Your task to perform on an android device: toggle javascript in the chrome app Image 0: 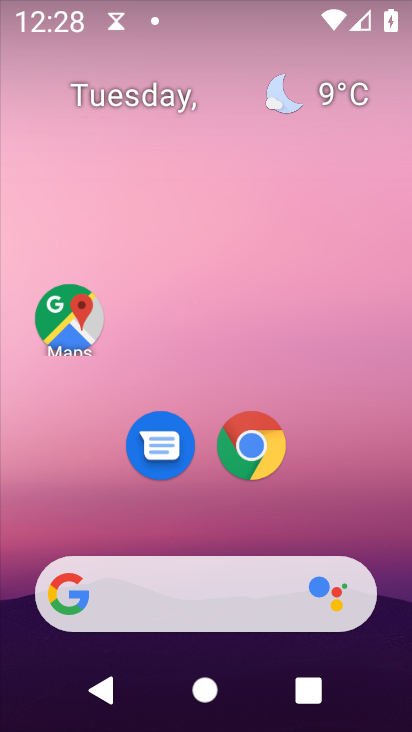
Step 0: drag from (379, 614) to (401, 130)
Your task to perform on an android device: toggle javascript in the chrome app Image 1: 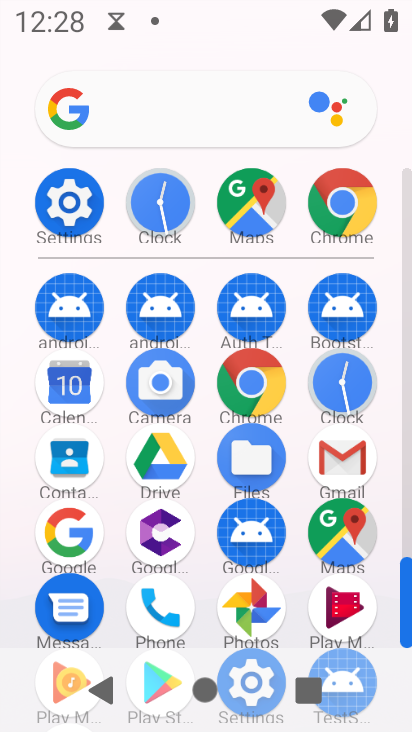
Step 1: click (239, 379)
Your task to perform on an android device: toggle javascript in the chrome app Image 2: 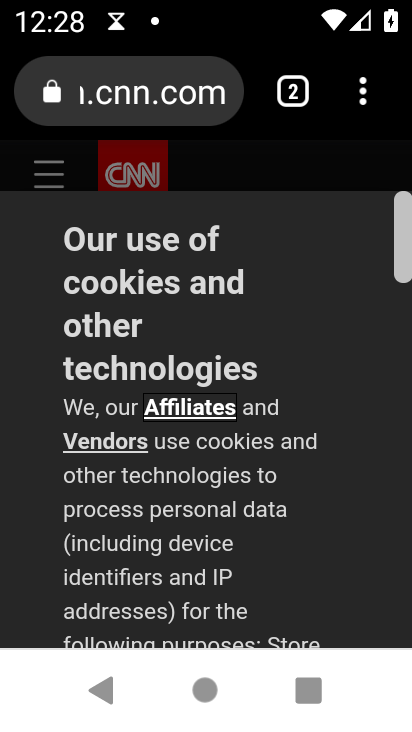
Step 2: drag from (360, 91) to (268, 492)
Your task to perform on an android device: toggle javascript in the chrome app Image 3: 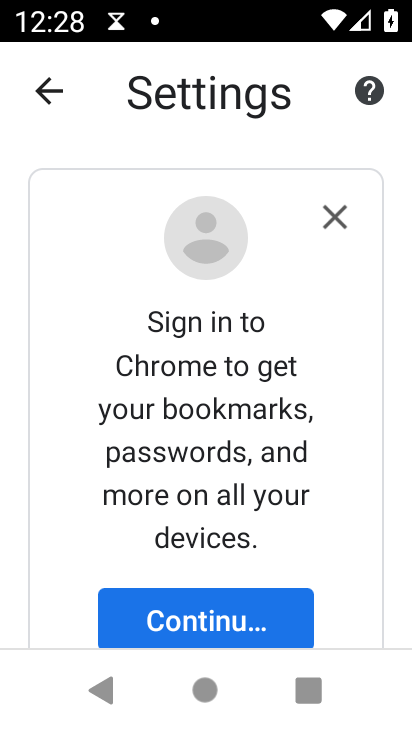
Step 3: drag from (363, 606) to (375, 97)
Your task to perform on an android device: toggle javascript in the chrome app Image 4: 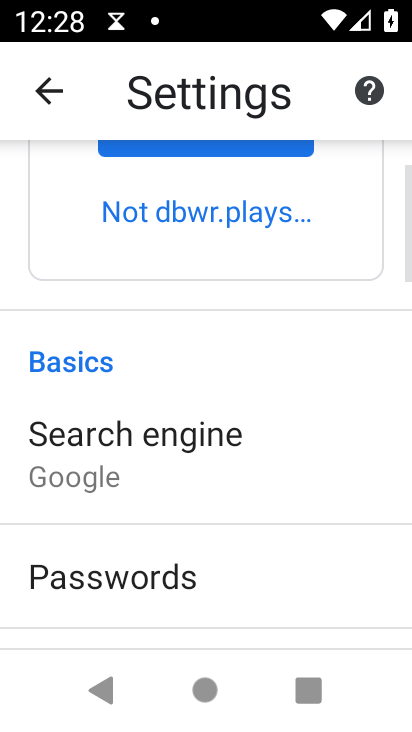
Step 4: drag from (318, 601) to (311, 221)
Your task to perform on an android device: toggle javascript in the chrome app Image 5: 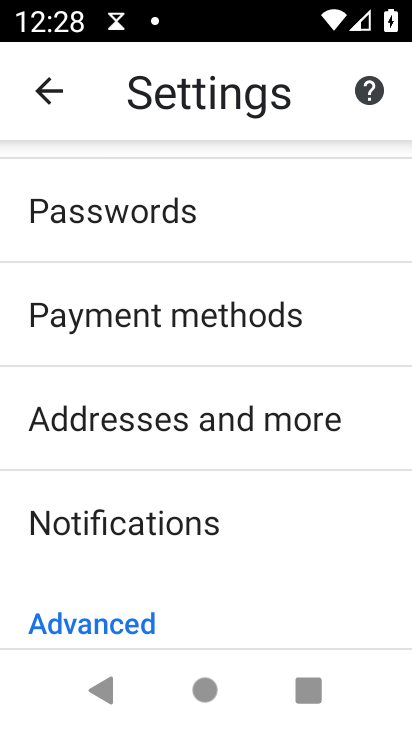
Step 5: drag from (332, 585) to (335, 111)
Your task to perform on an android device: toggle javascript in the chrome app Image 6: 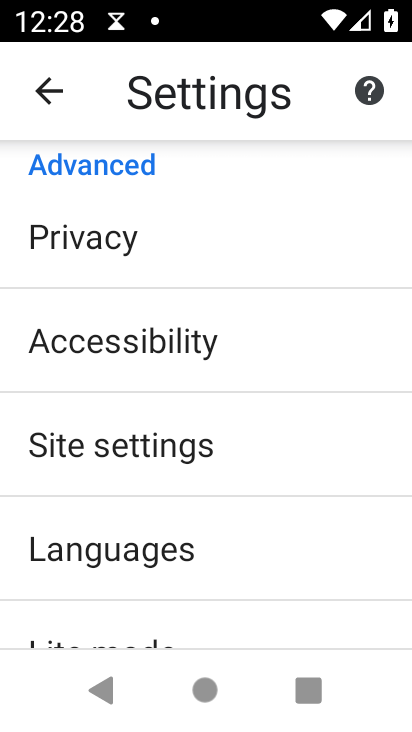
Step 6: click (200, 455)
Your task to perform on an android device: toggle javascript in the chrome app Image 7: 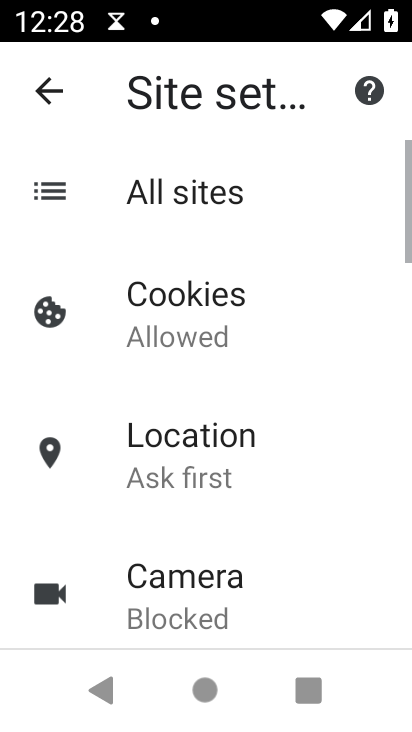
Step 7: drag from (261, 619) to (278, 179)
Your task to perform on an android device: toggle javascript in the chrome app Image 8: 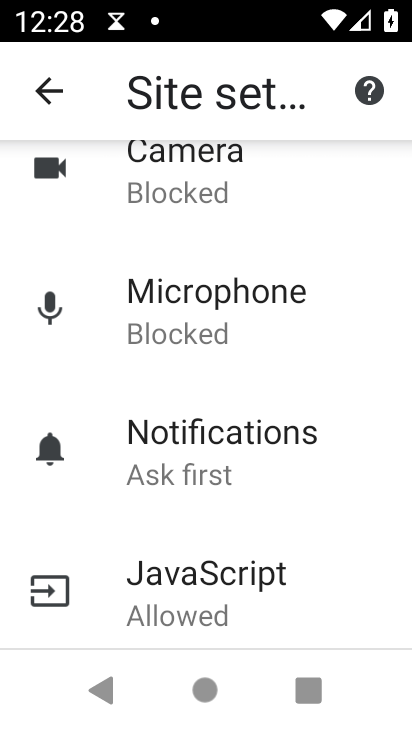
Step 8: click (280, 588)
Your task to perform on an android device: toggle javascript in the chrome app Image 9: 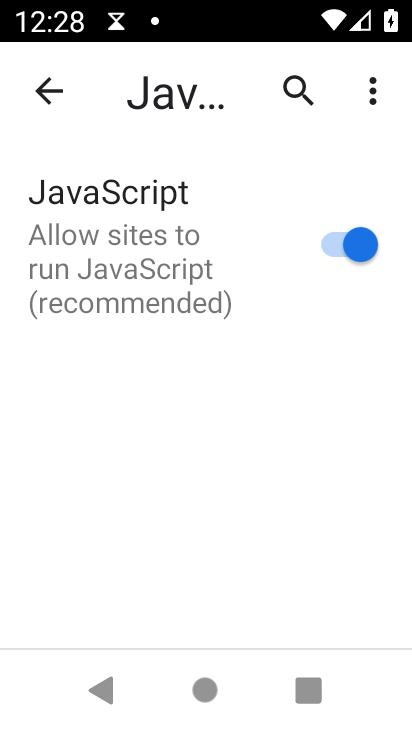
Step 9: click (335, 252)
Your task to perform on an android device: toggle javascript in the chrome app Image 10: 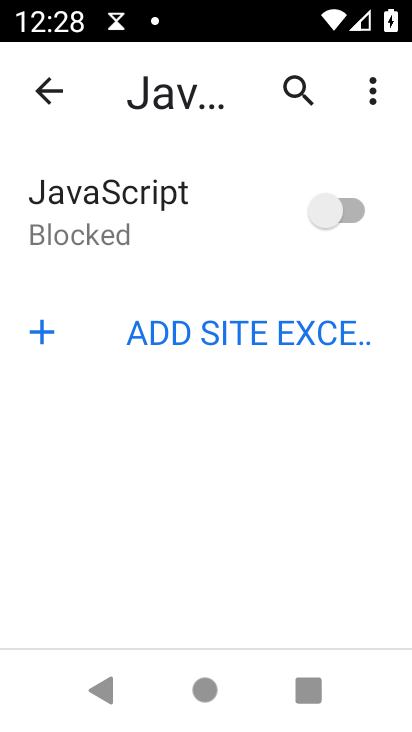
Step 10: task complete